Your task to perform on an android device: Find coffee shops on Maps Image 0: 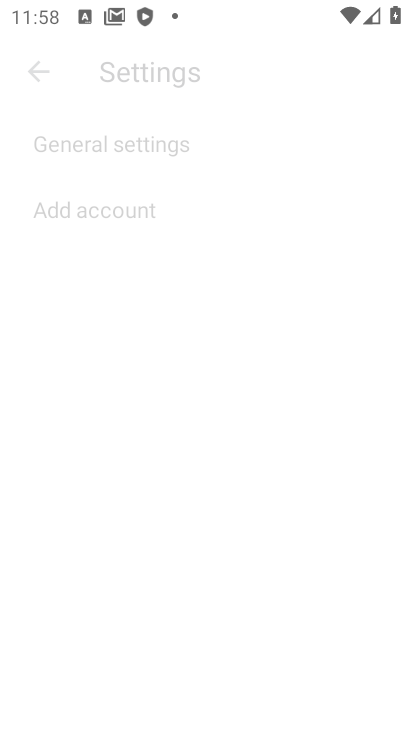
Step 0: drag from (216, 525) to (227, 168)
Your task to perform on an android device: Find coffee shops on Maps Image 1: 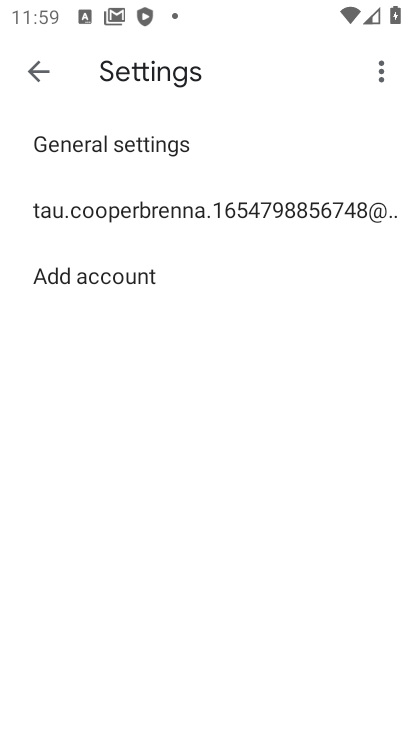
Step 1: press home button
Your task to perform on an android device: Find coffee shops on Maps Image 2: 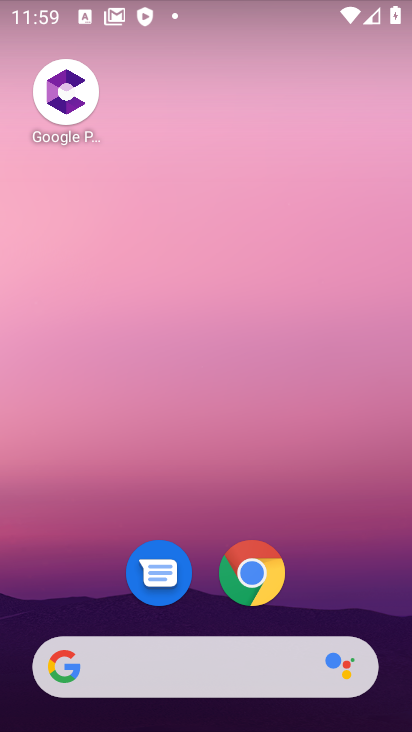
Step 2: drag from (216, 495) to (208, 115)
Your task to perform on an android device: Find coffee shops on Maps Image 3: 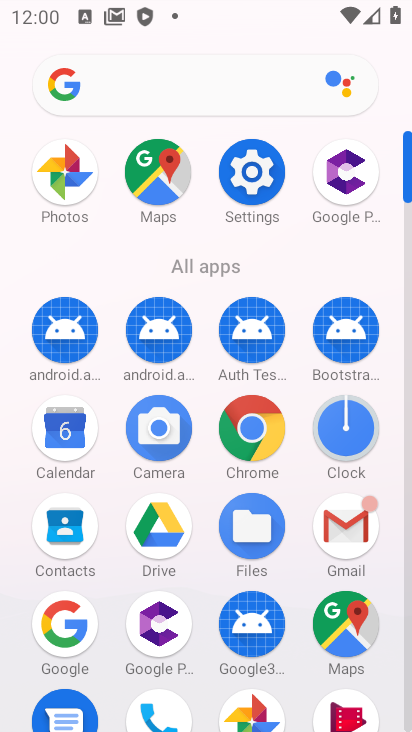
Step 3: click (342, 628)
Your task to perform on an android device: Find coffee shops on Maps Image 4: 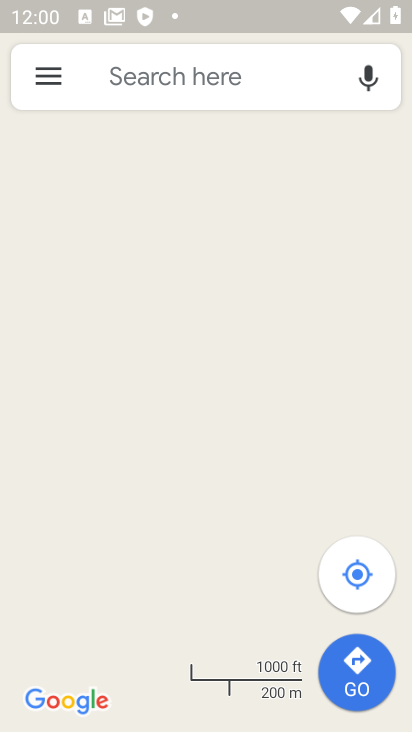
Step 4: task complete